Your task to perform on an android device: check android version Image 0: 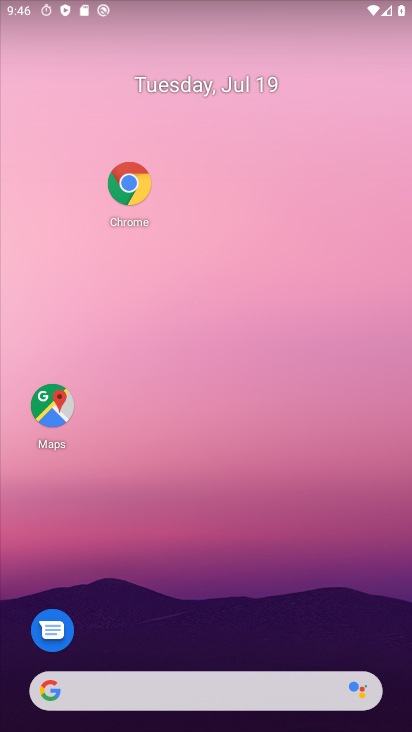
Step 0: drag from (211, 657) to (128, 169)
Your task to perform on an android device: check android version Image 1: 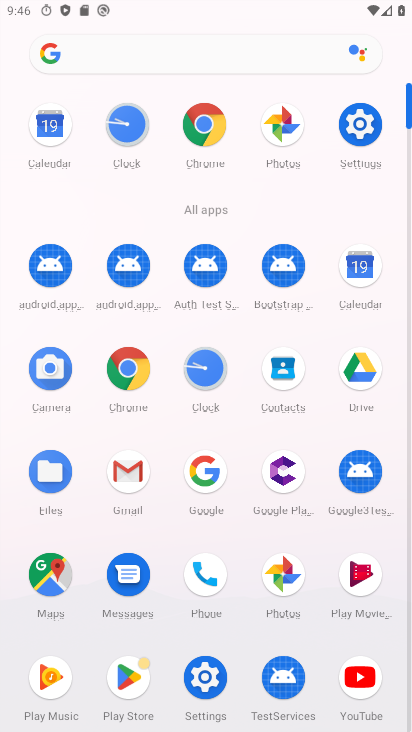
Step 1: click (216, 704)
Your task to perform on an android device: check android version Image 2: 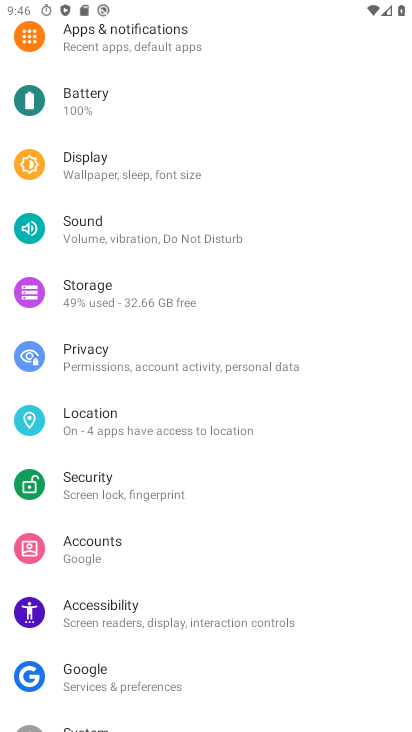
Step 2: drag from (216, 704) to (84, 136)
Your task to perform on an android device: check android version Image 3: 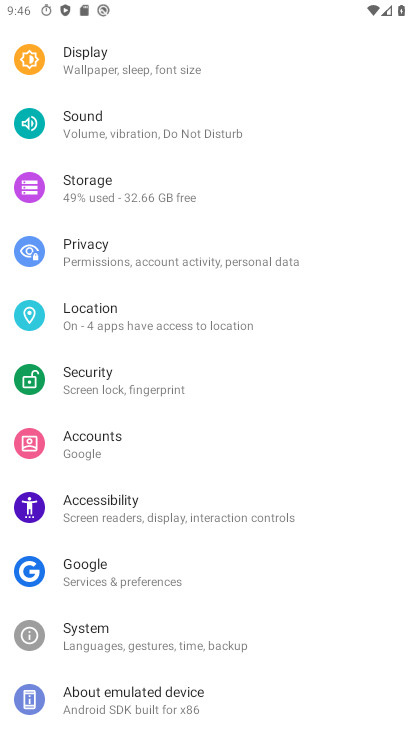
Step 3: click (26, 693)
Your task to perform on an android device: check android version Image 4: 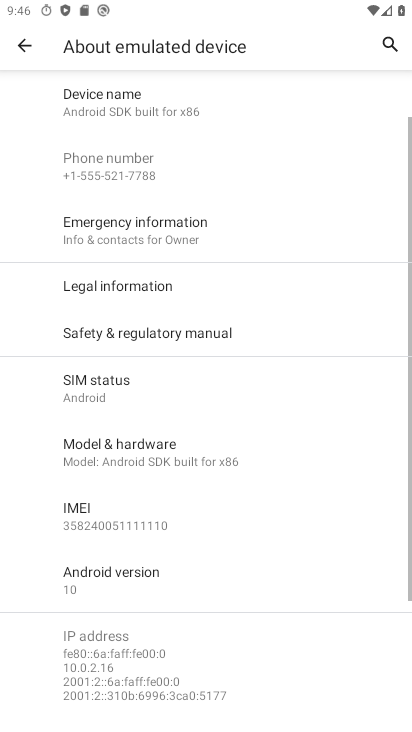
Step 4: click (86, 581)
Your task to perform on an android device: check android version Image 5: 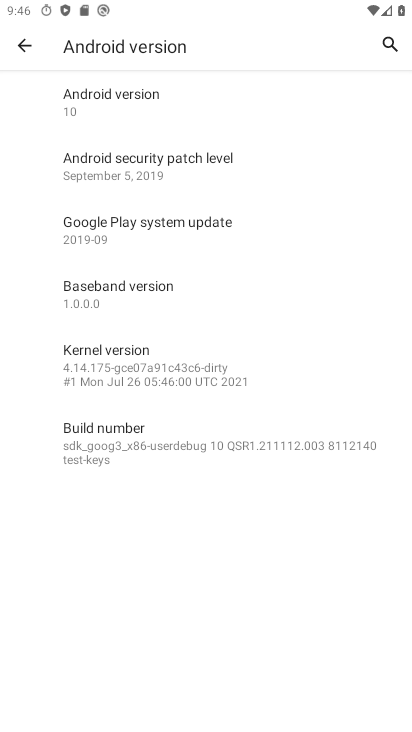
Step 5: task complete